Your task to perform on an android device: Open calendar and show me the first week of next month Image 0: 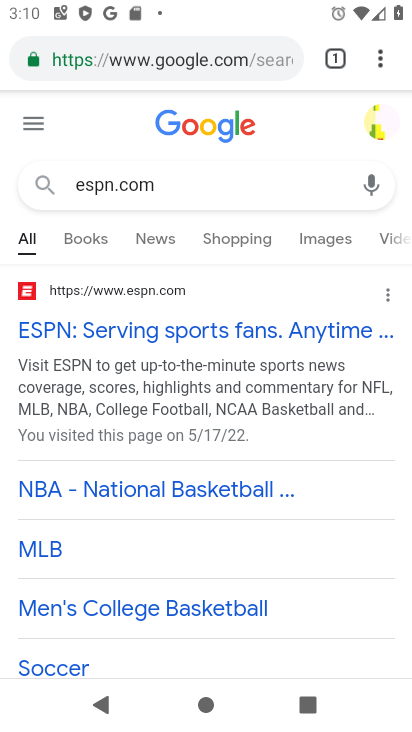
Step 0: drag from (397, 558) to (380, 358)
Your task to perform on an android device: Open calendar and show me the first week of next month Image 1: 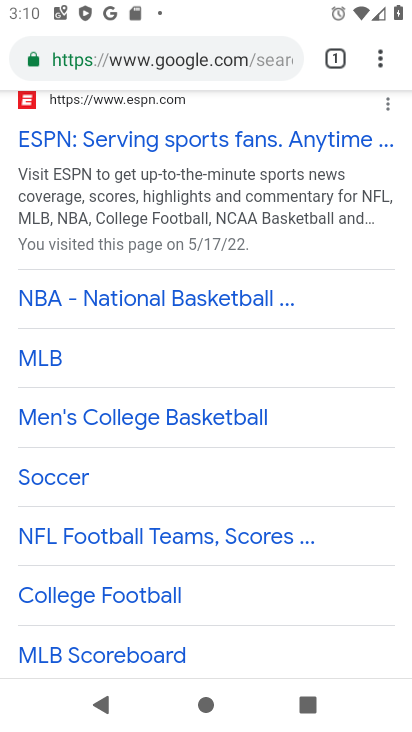
Step 1: press home button
Your task to perform on an android device: Open calendar and show me the first week of next month Image 2: 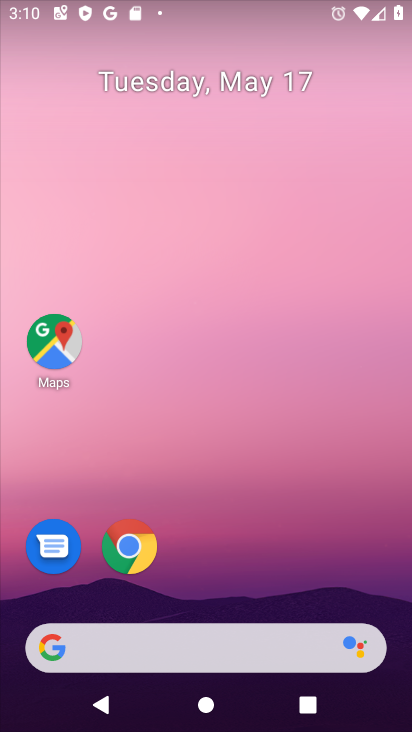
Step 2: drag from (391, 653) to (363, 360)
Your task to perform on an android device: Open calendar and show me the first week of next month Image 3: 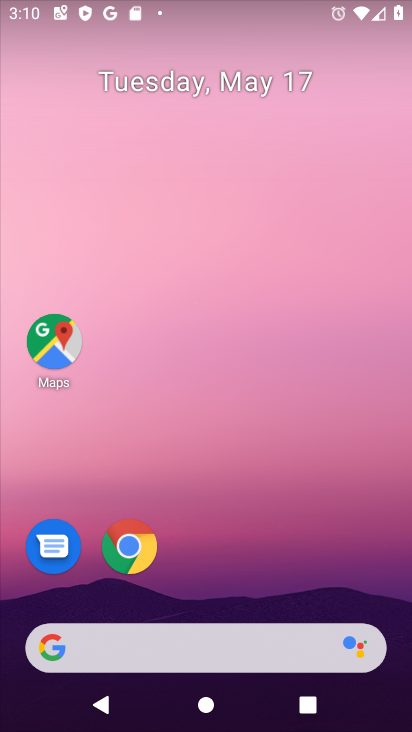
Step 3: drag from (410, 633) to (364, 141)
Your task to perform on an android device: Open calendar and show me the first week of next month Image 4: 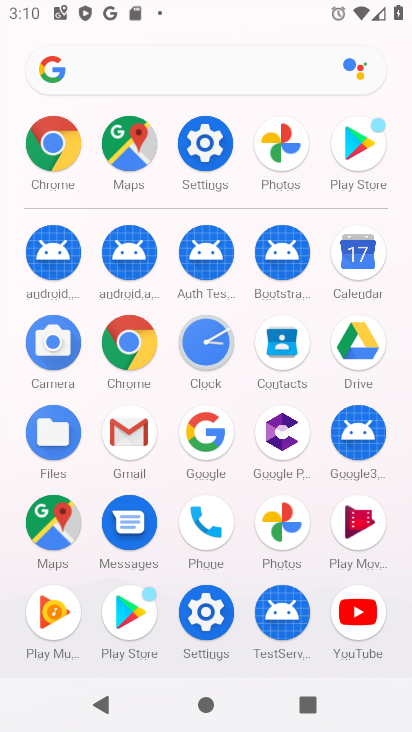
Step 4: click (356, 250)
Your task to perform on an android device: Open calendar and show me the first week of next month Image 5: 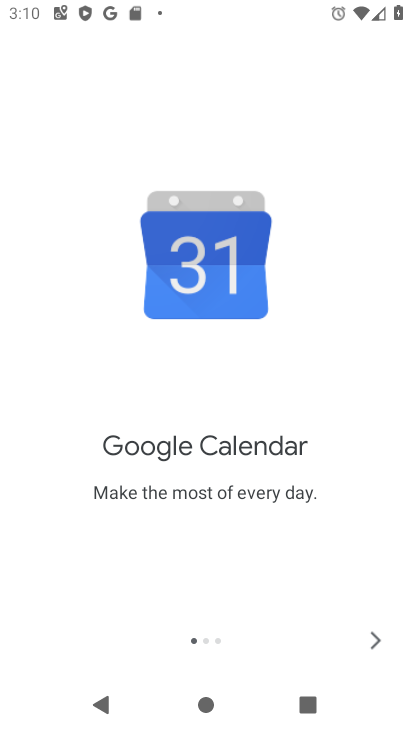
Step 5: click (369, 635)
Your task to perform on an android device: Open calendar and show me the first week of next month Image 6: 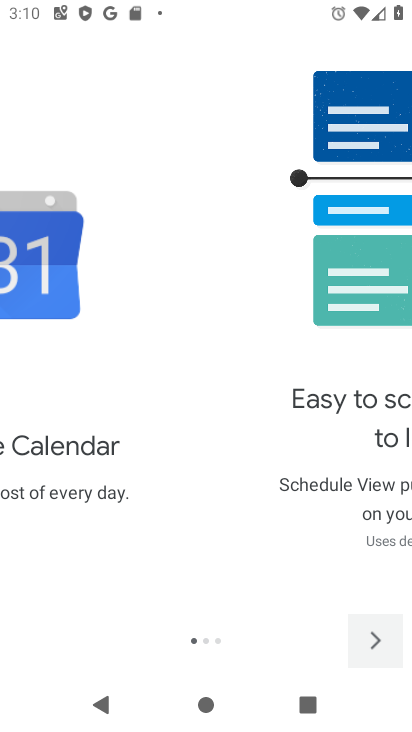
Step 6: click (374, 642)
Your task to perform on an android device: Open calendar and show me the first week of next month Image 7: 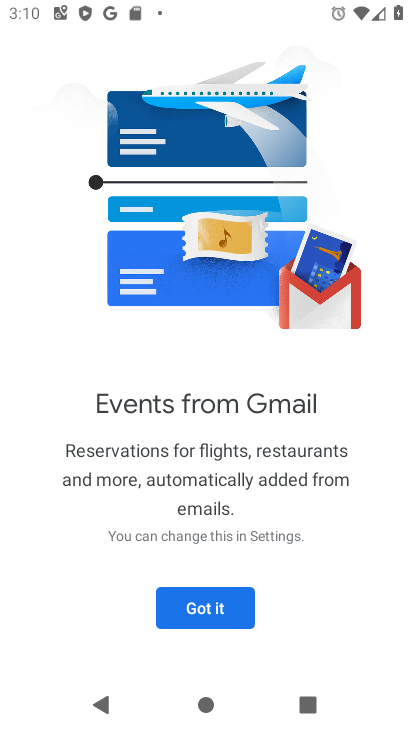
Step 7: click (373, 640)
Your task to perform on an android device: Open calendar and show me the first week of next month Image 8: 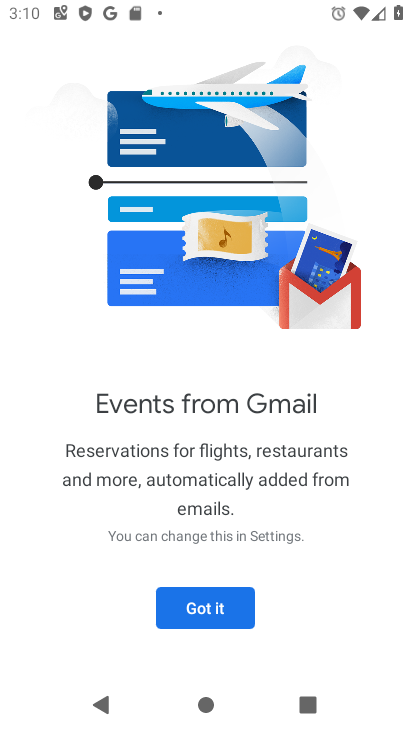
Step 8: click (224, 597)
Your task to perform on an android device: Open calendar and show me the first week of next month Image 9: 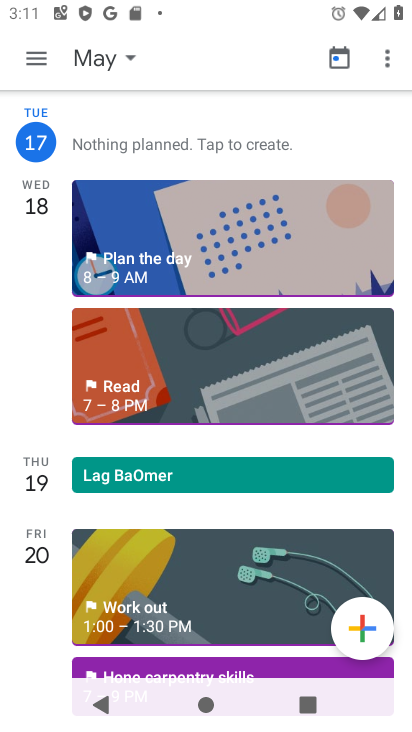
Step 9: click (132, 55)
Your task to perform on an android device: Open calendar and show me the first week of next month Image 10: 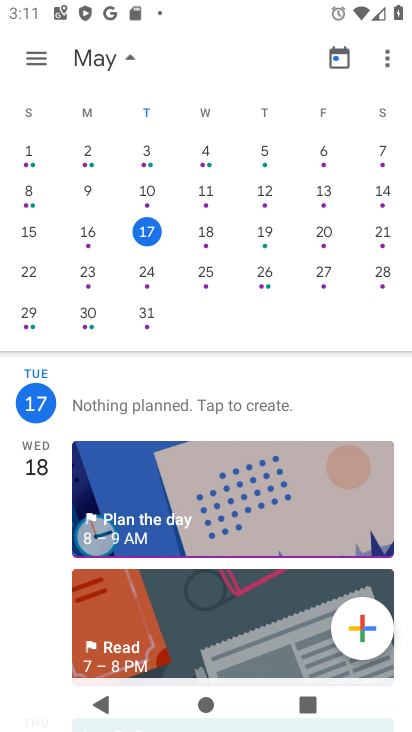
Step 10: drag from (395, 213) to (121, 160)
Your task to perform on an android device: Open calendar and show me the first week of next month Image 11: 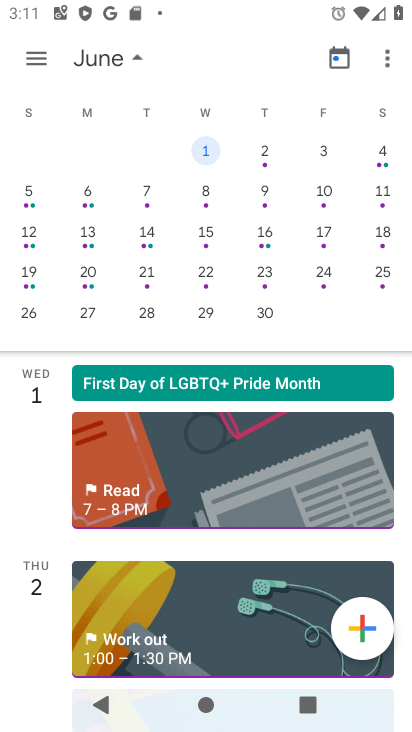
Step 11: click (265, 147)
Your task to perform on an android device: Open calendar and show me the first week of next month Image 12: 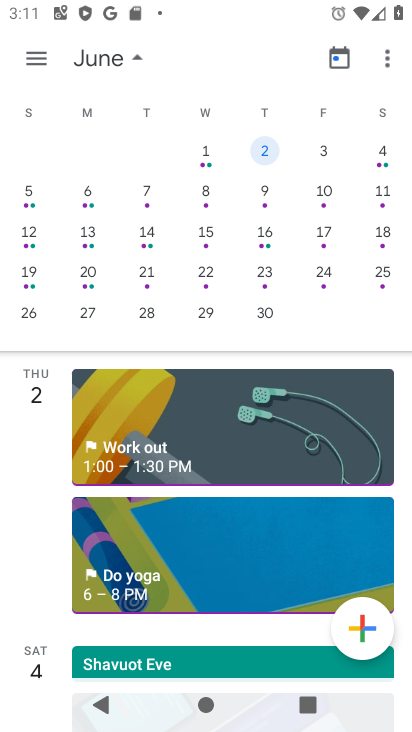
Step 12: click (38, 54)
Your task to perform on an android device: Open calendar and show me the first week of next month Image 13: 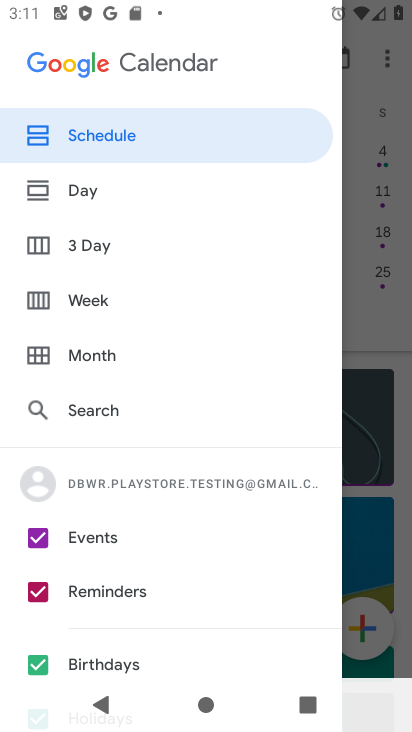
Step 13: click (97, 297)
Your task to perform on an android device: Open calendar and show me the first week of next month Image 14: 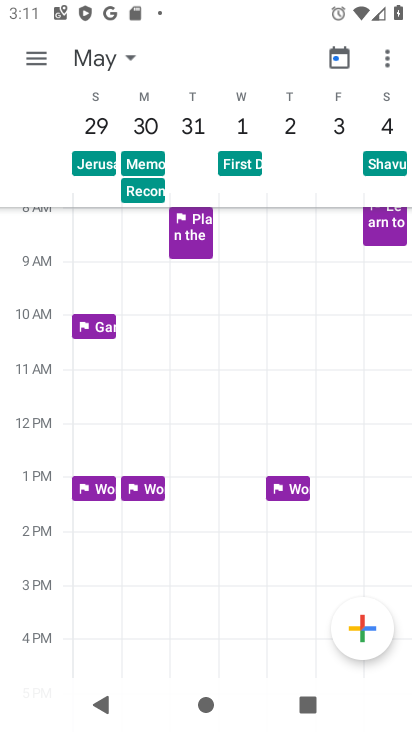
Step 14: task complete